Your task to perform on an android device: change the clock display to digital Image 0: 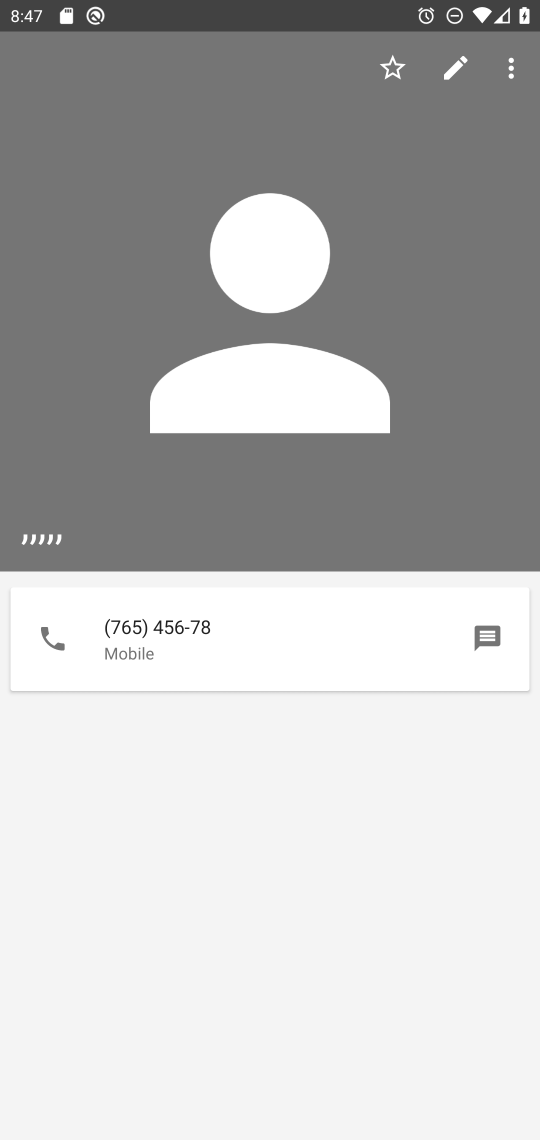
Step 0: press home button
Your task to perform on an android device: change the clock display to digital Image 1: 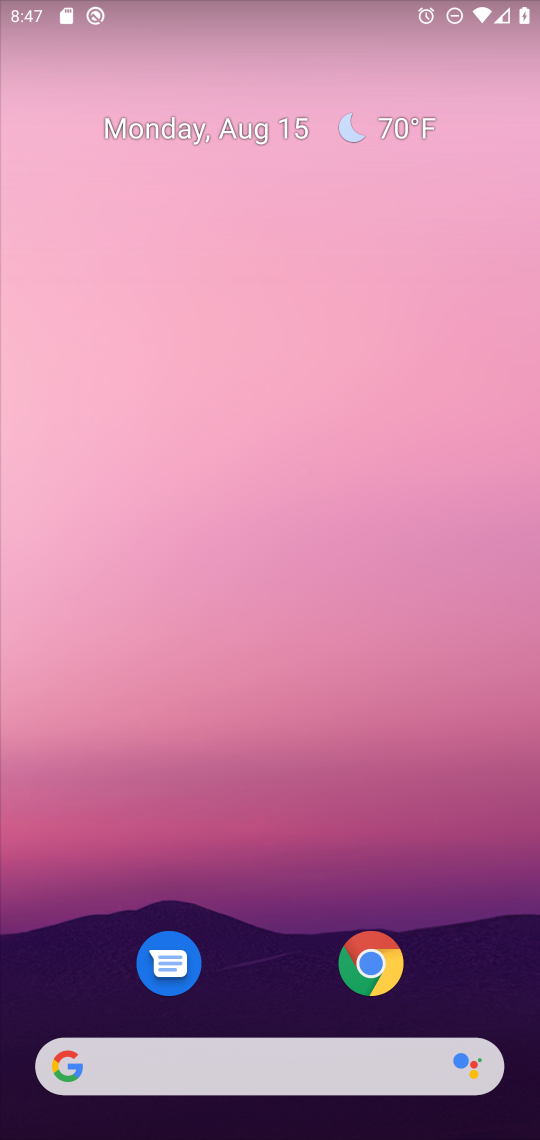
Step 1: click (397, 122)
Your task to perform on an android device: change the clock display to digital Image 2: 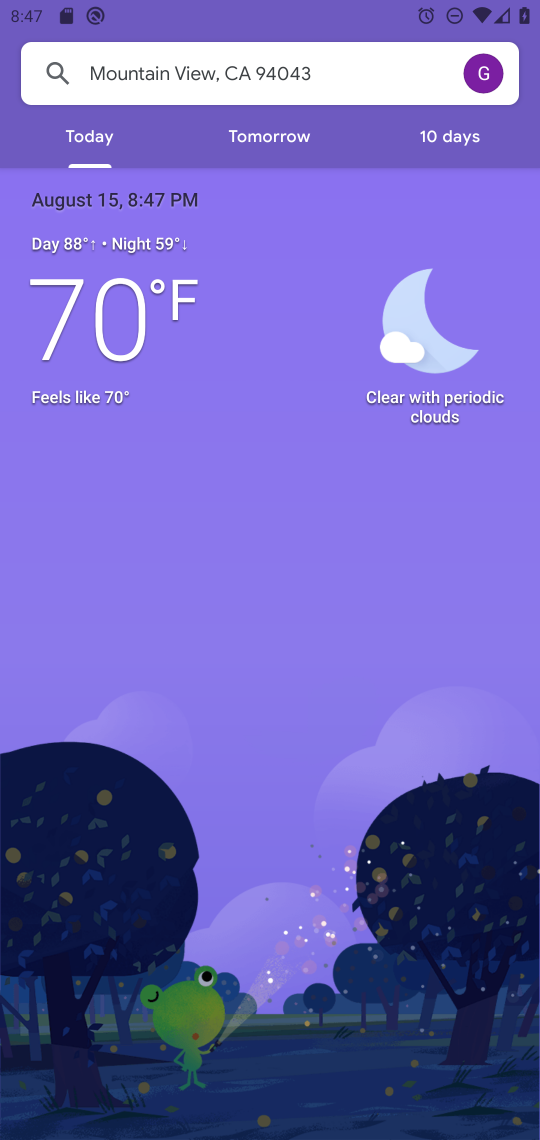
Step 2: task complete